Your task to perform on an android device: Go to sound settings Image 0: 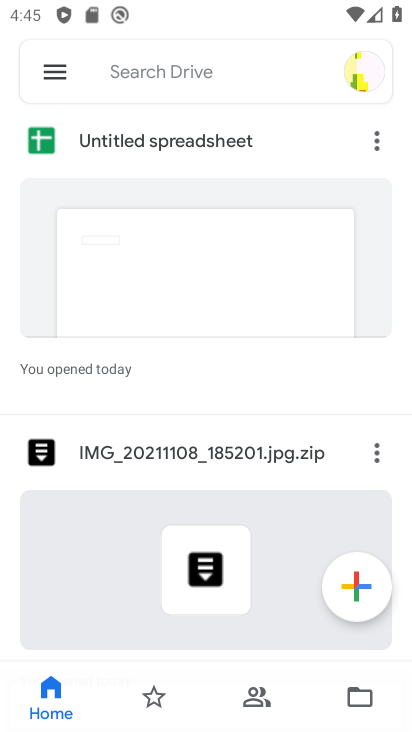
Step 0: press home button
Your task to perform on an android device: Go to sound settings Image 1: 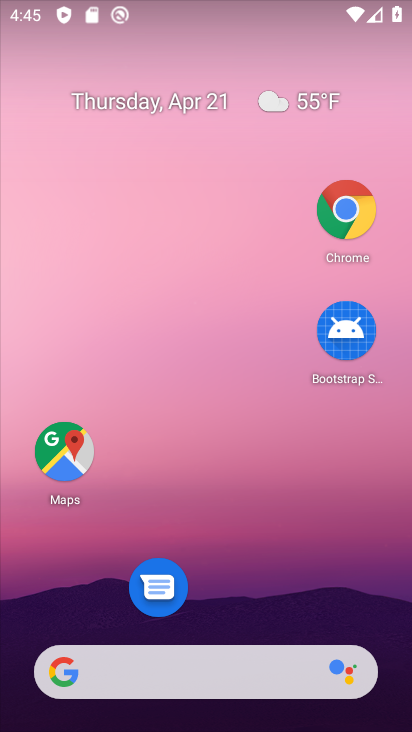
Step 1: drag from (256, 557) to (302, 119)
Your task to perform on an android device: Go to sound settings Image 2: 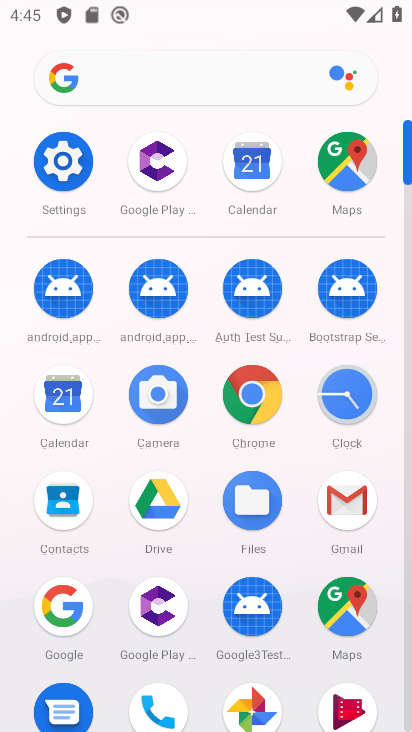
Step 2: click (62, 157)
Your task to perform on an android device: Go to sound settings Image 3: 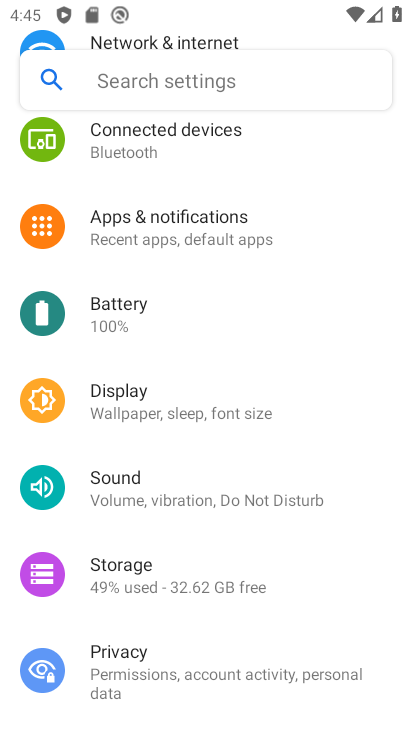
Step 3: click (116, 480)
Your task to perform on an android device: Go to sound settings Image 4: 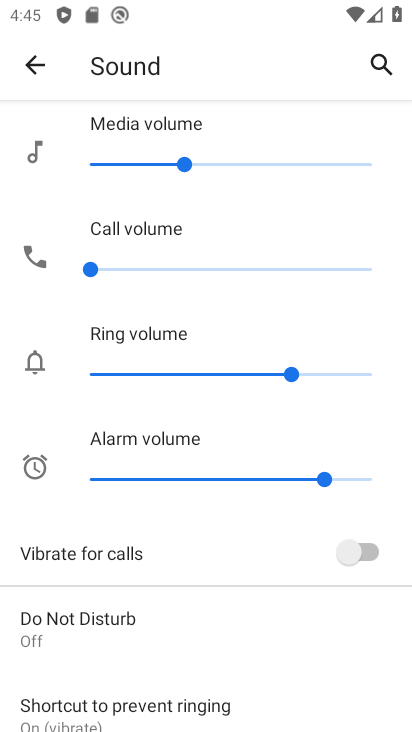
Step 4: task complete